Your task to perform on an android device: see creations saved in the google photos Image 0: 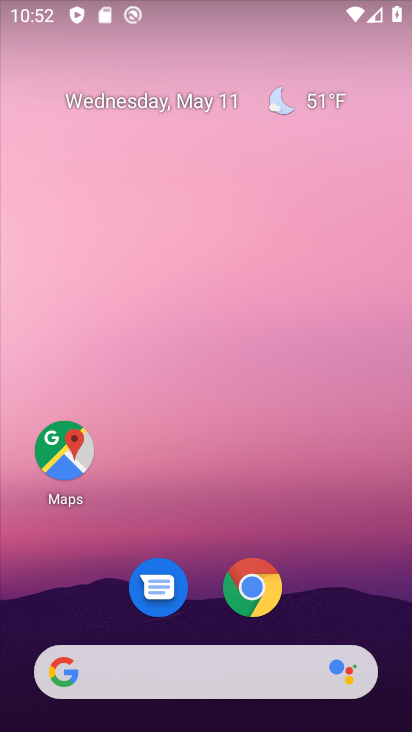
Step 0: drag from (218, 576) to (302, 16)
Your task to perform on an android device: see creations saved in the google photos Image 1: 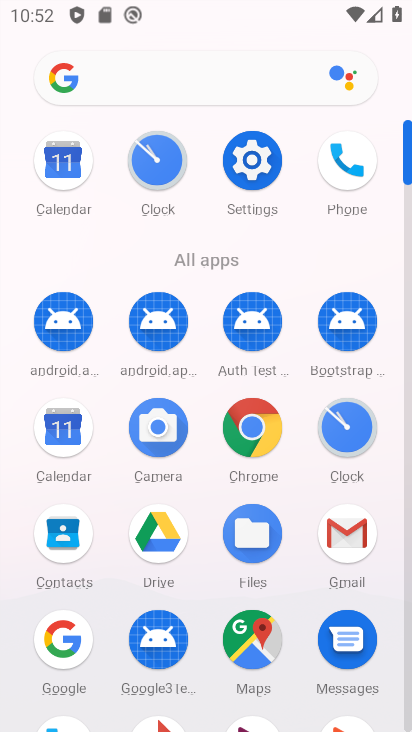
Step 1: drag from (208, 625) to (282, 159)
Your task to perform on an android device: see creations saved in the google photos Image 2: 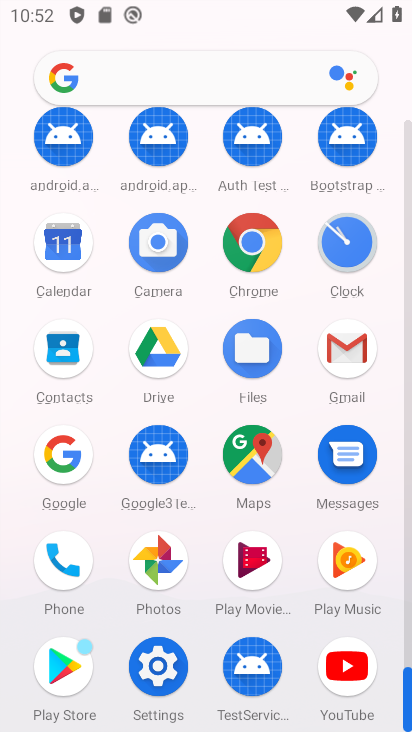
Step 2: click (163, 560)
Your task to perform on an android device: see creations saved in the google photos Image 3: 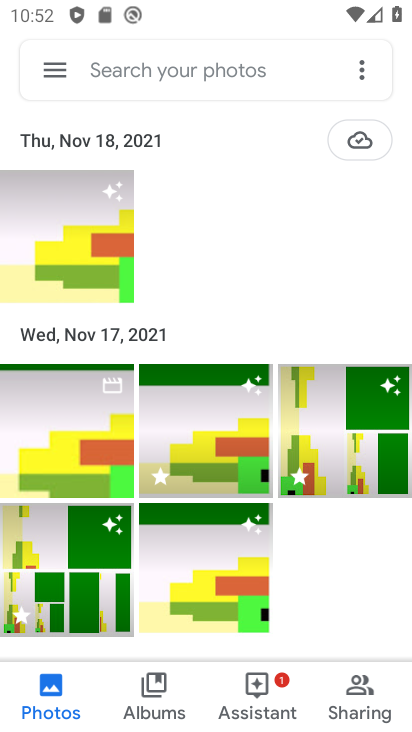
Step 3: click (46, 62)
Your task to perform on an android device: see creations saved in the google photos Image 4: 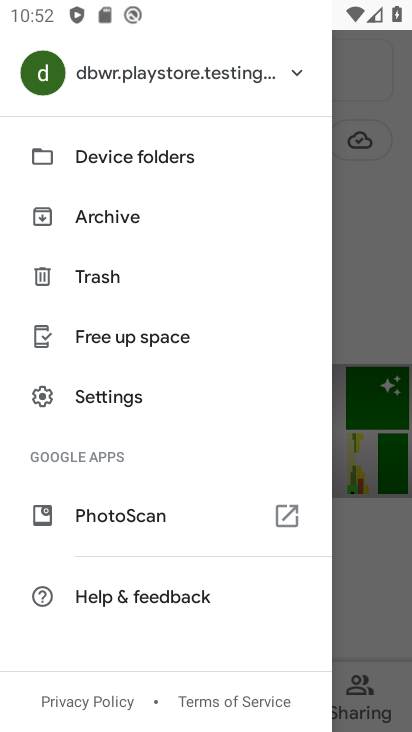
Step 4: click (102, 216)
Your task to perform on an android device: see creations saved in the google photos Image 5: 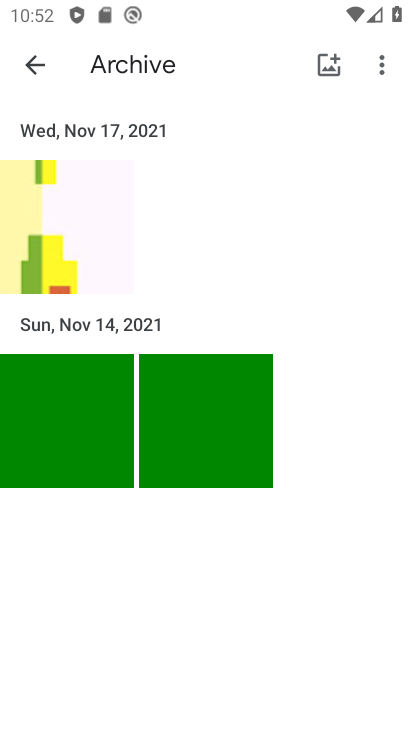
Step 5: task complete